Your task to perform on an android device: What's on my calendar tomorrow? Image 0: 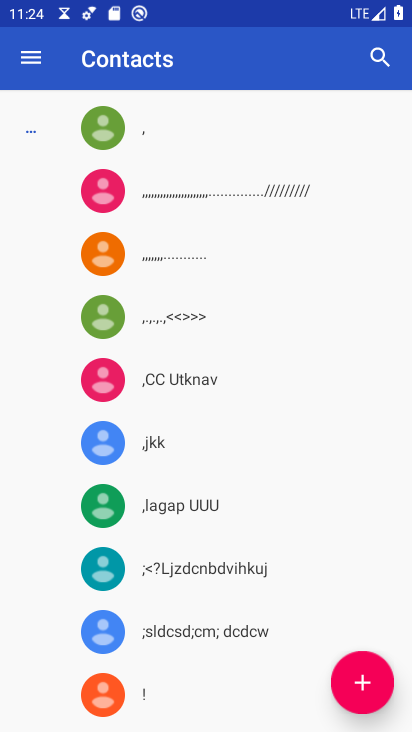
Step 0: press home button
Your task to perform on an android device: What's on my calendar tomorrow? Image 1: 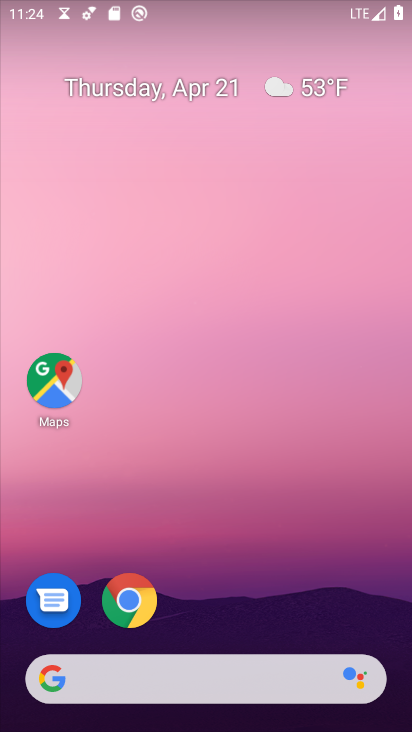
Step 1: drag from (249, 554) to (250, 0)
Your task to perform on an android device: What's on my calendar tomorrow? Image 2: 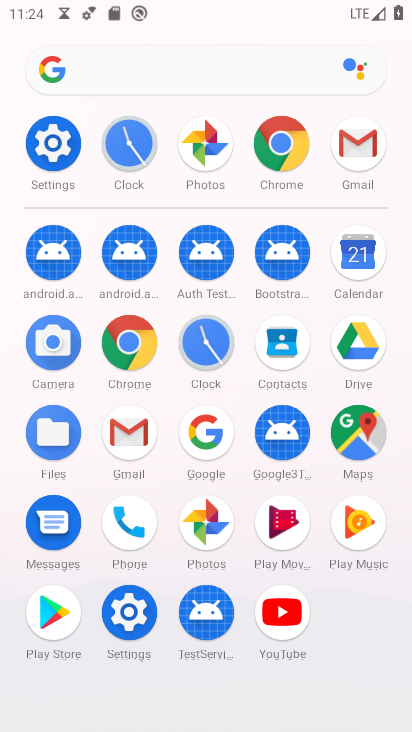
Step 2: click (363, 257)
Your task to perform on an android device: What's on my calendar tomorrow? Image 3: 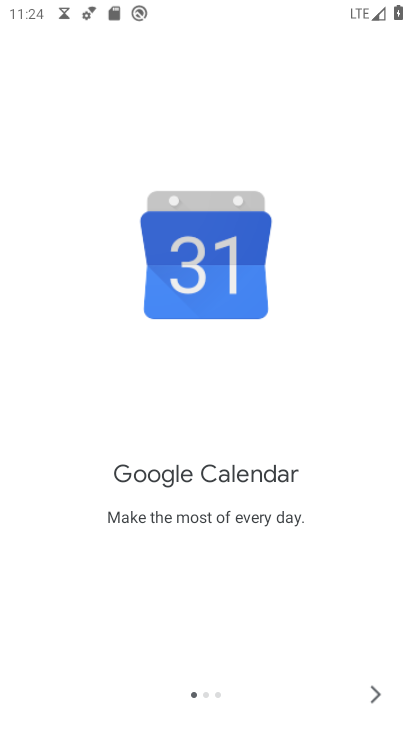
Step 3: click (379, 694)
Your task to perform on an android device: What's on my calendar tomorrow? Image 4: 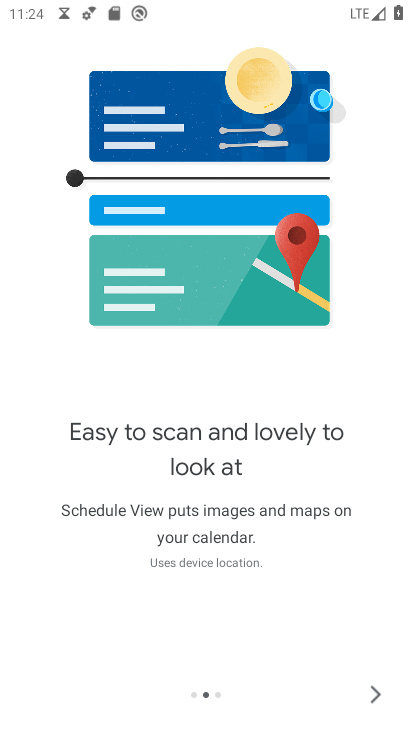
Step 4: click (374, 692)
Your task to perform on an android device: What's on my calendar tomorrow? Image 5: 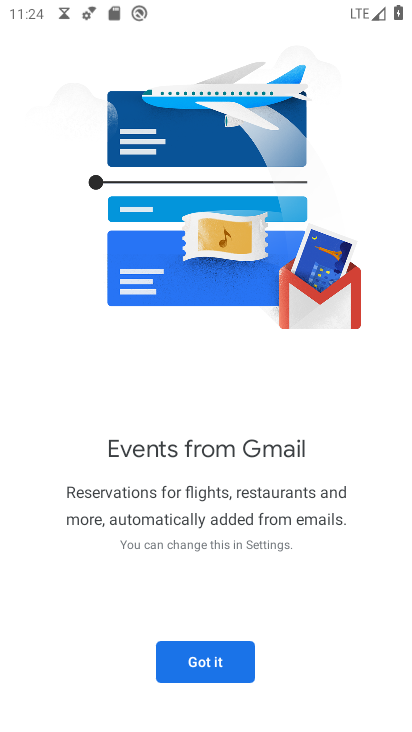
Step 5: click (237, 667)
Your task to perform on an android device: What's on my calendar tomorrow? Image 6: 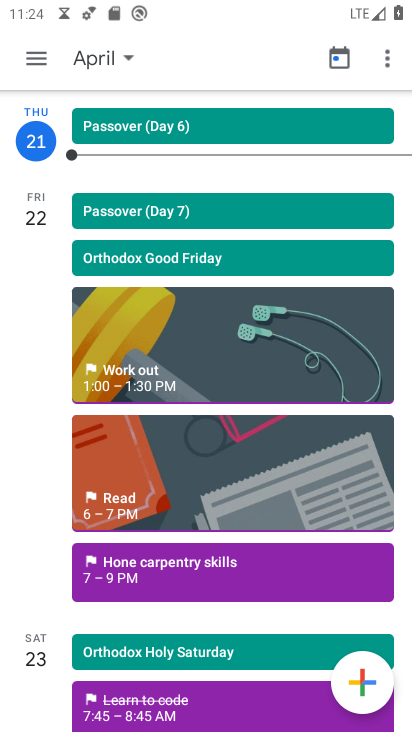
Step 6: click (37, 209)
Your task to perform on an android device: What's on my calendar tomorrow? Image 7: 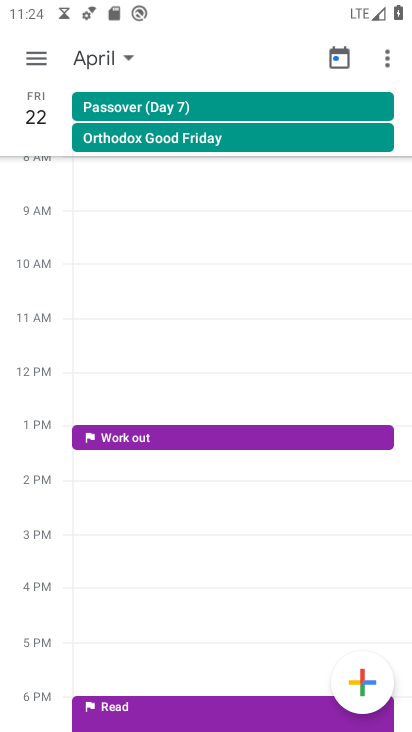
Step 7: task complete